Your task to perform on an android device: choose inbox layout in the gmail app Image 0: 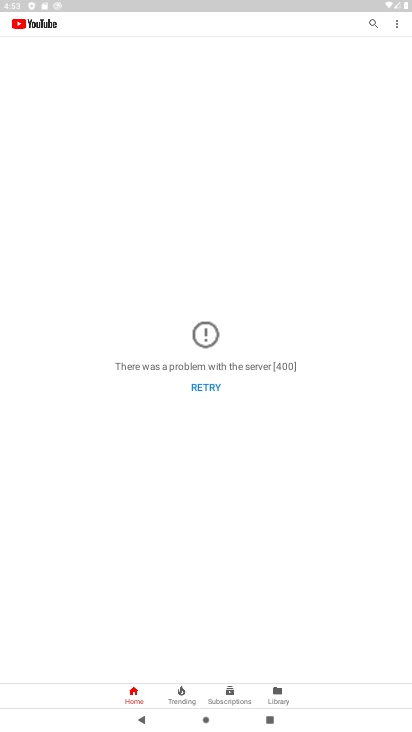
Step 0: press home button
Your task to perform on an android device: choose inbox layout in the gmail app Image 1: 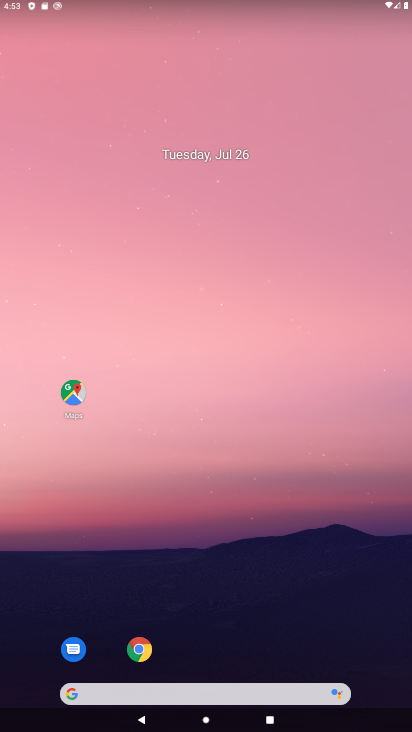
Step 1: drag from (316, 639) to (207, 136)
Your task to perform on an android device: choose inbox layout in the gmail app Image 2: 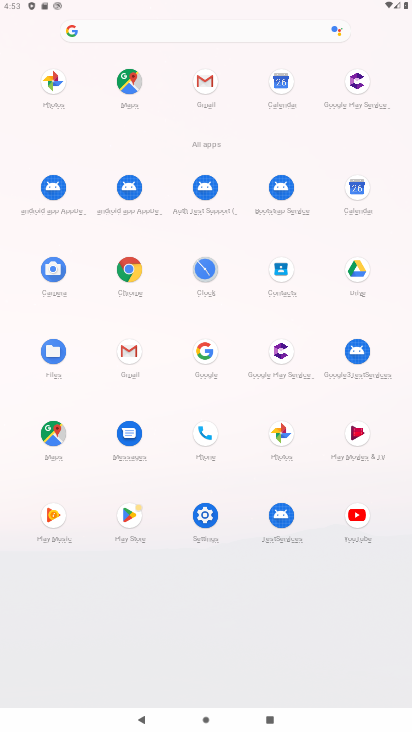
Step 2: click (128, 354)
Your task to perform on an android device: choose inbox layout in the gmail app Image 3: 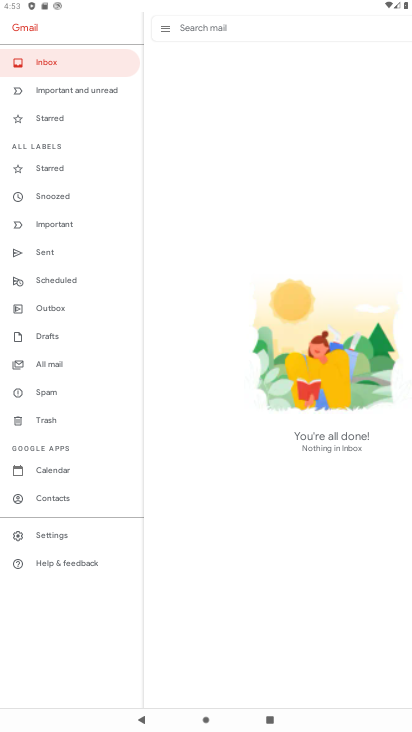
Step 3: click (71, 538)
Your task to perform on an android device: choose inbox layout in the gmail app Image 4: 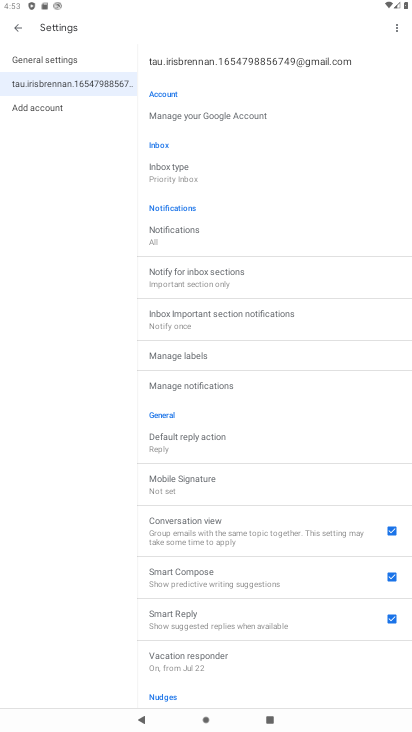
Step 4: click (198, 174)
Your task to perform on an android device: choose inbox layout in the gmail app Image 5: 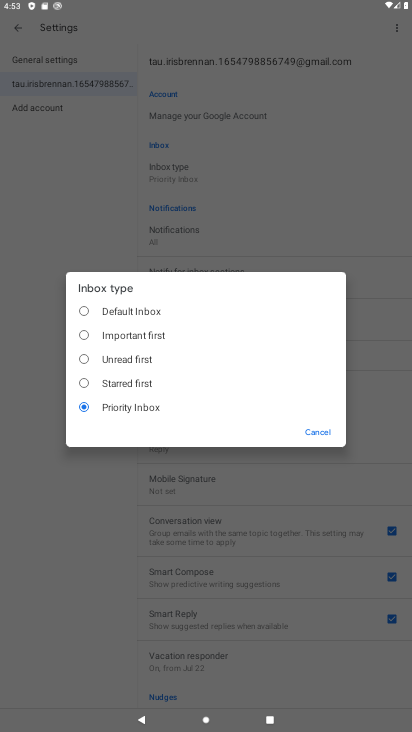
Step 5: click (153, 338)
Your task to perform on an android device: choose inbox layout in the gmail app Image 6: 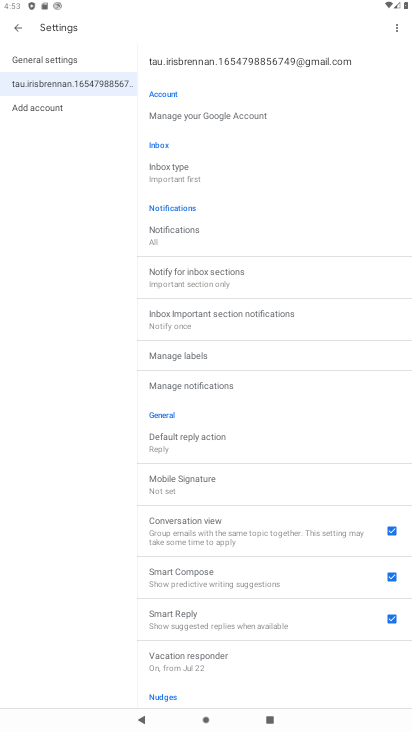
Step 6: task complete